Your task to perform on an android device: Show me the best rated 4K TV on Walmart. Image 0: 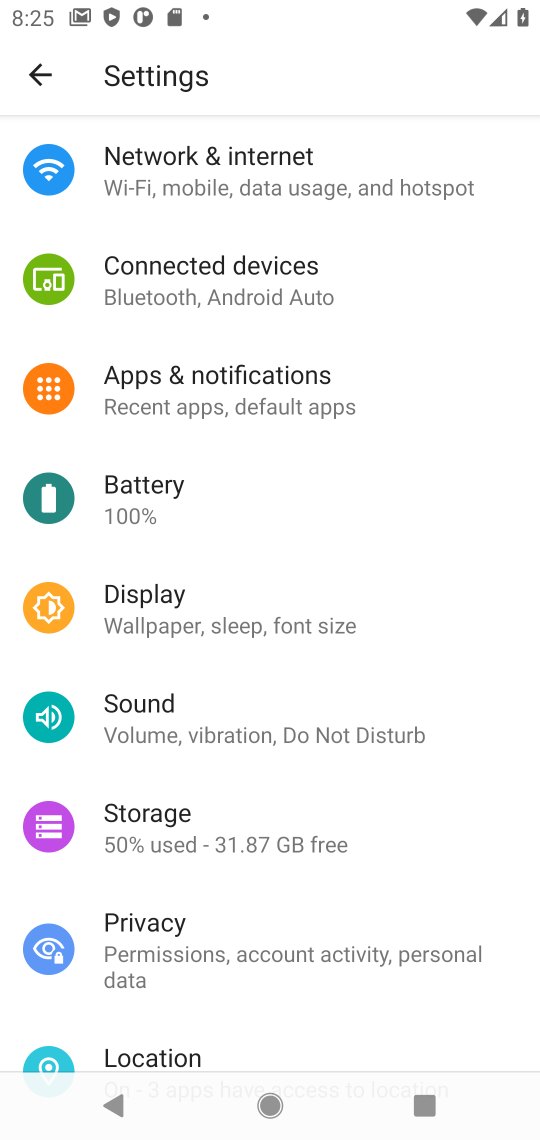
Step 0: press home button
Your task to perform on an android device: Show me the best rated 4K TV on Walmart. Image 1: 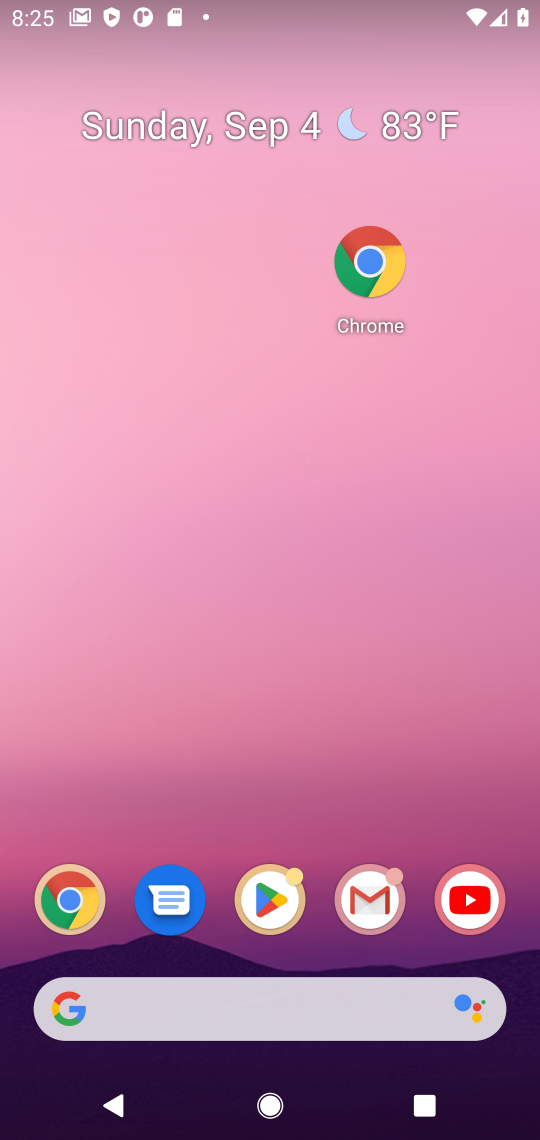
Step 1: click (353, 252)
Your task to perform on an android device: Show me the best rated 4K TV on Walmart. Image 2: 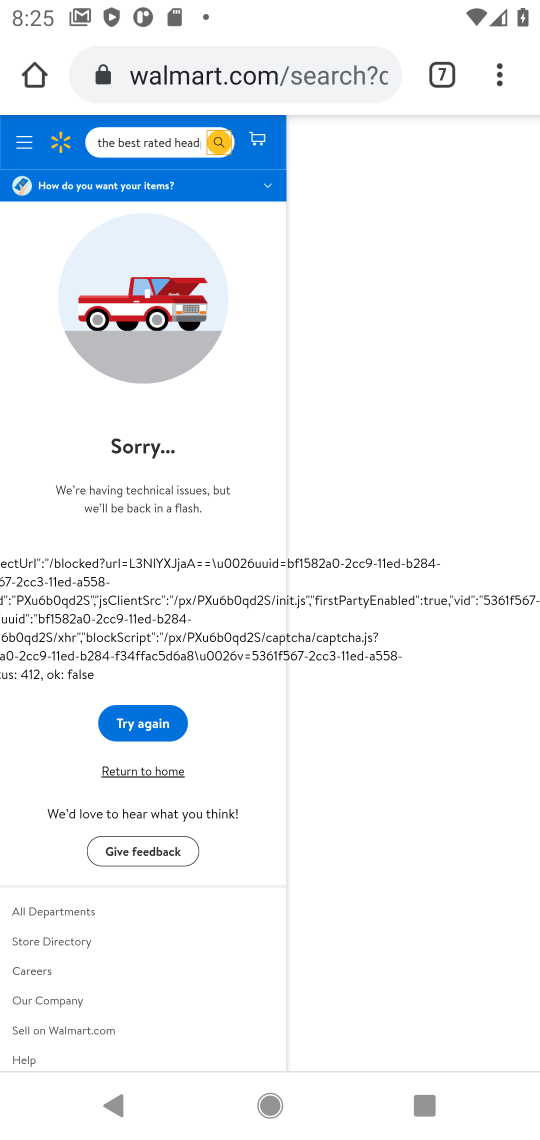
Step 2: click (431, 66)
Your task to perform on an android device: Show me the best rated 4K TV on Walmart. Image 3: 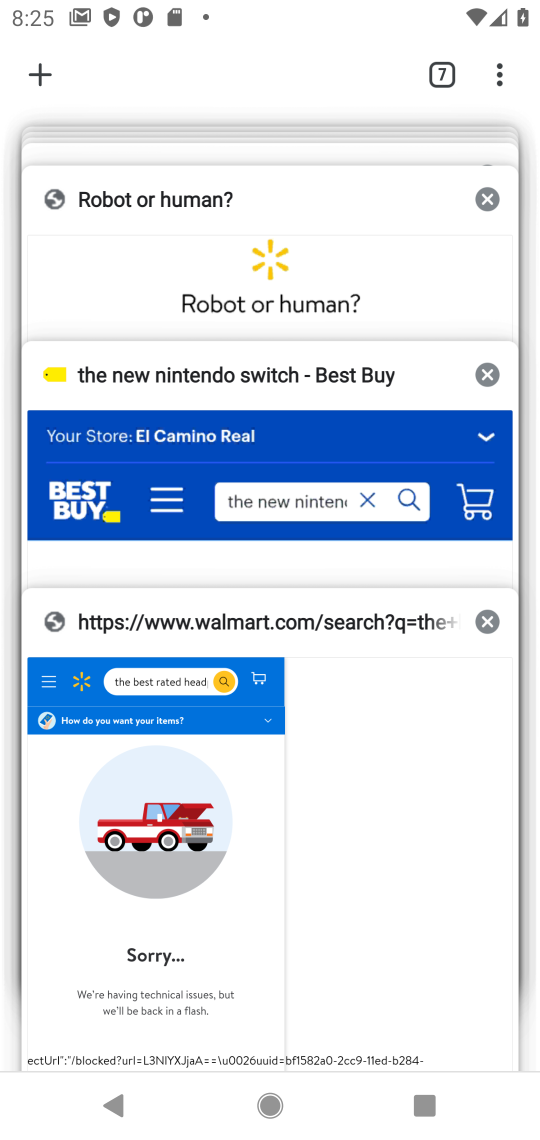
Step 3: click (412, 801)
Your task to perform on an android device: Show me the best rated 4K TV on Walmart. Image 4: 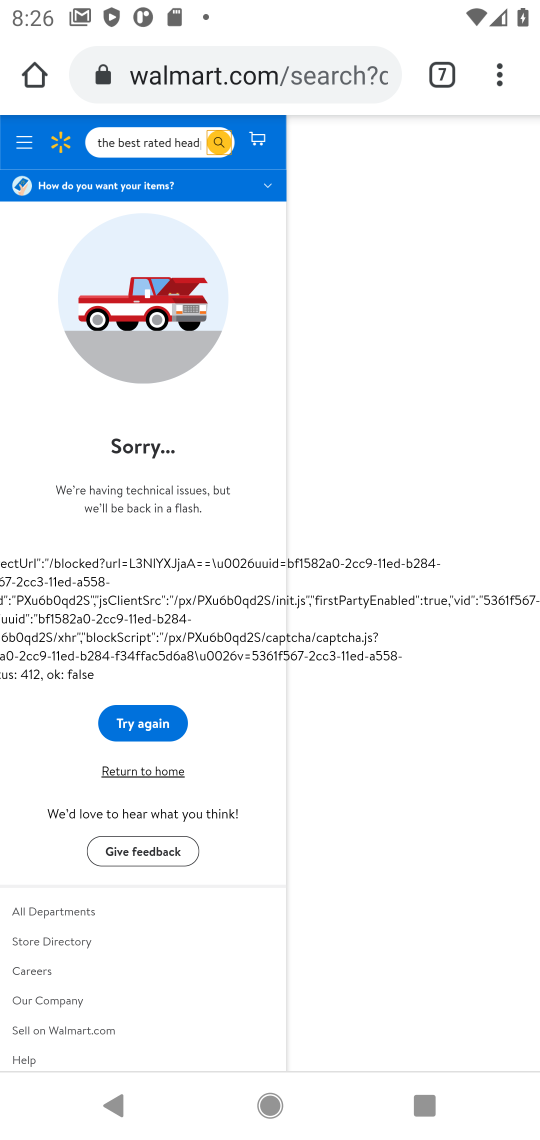
Step 4: click (198, 126)
Your task to perform on an android device: Show me the best rated 4K TV on Walmart. Image 5: 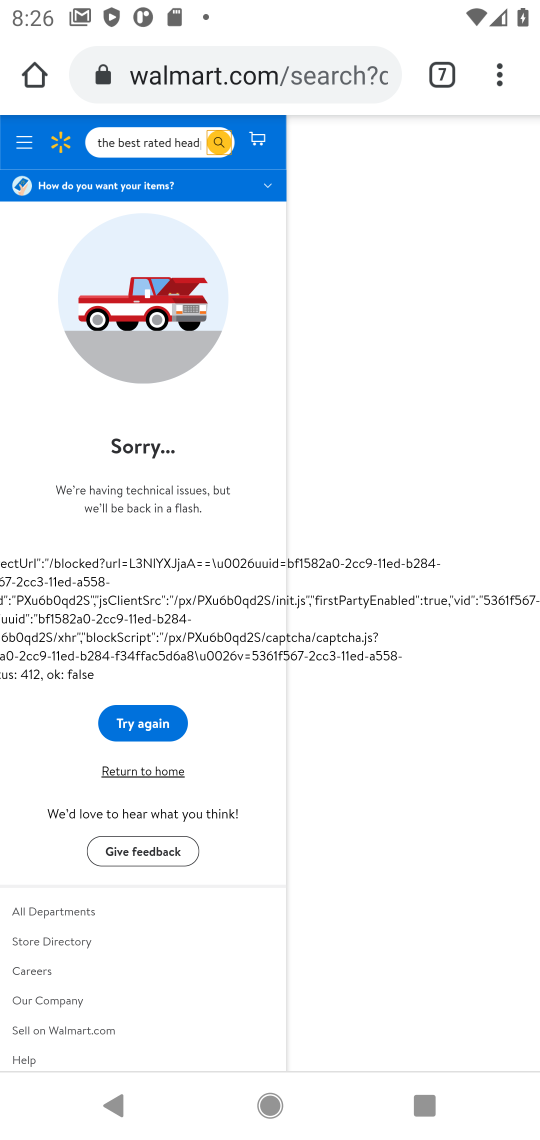
Step 5: click (428, 74)
Your task to perform on an android device: Show me the best rated 4K TV on Walmart. Image 6: 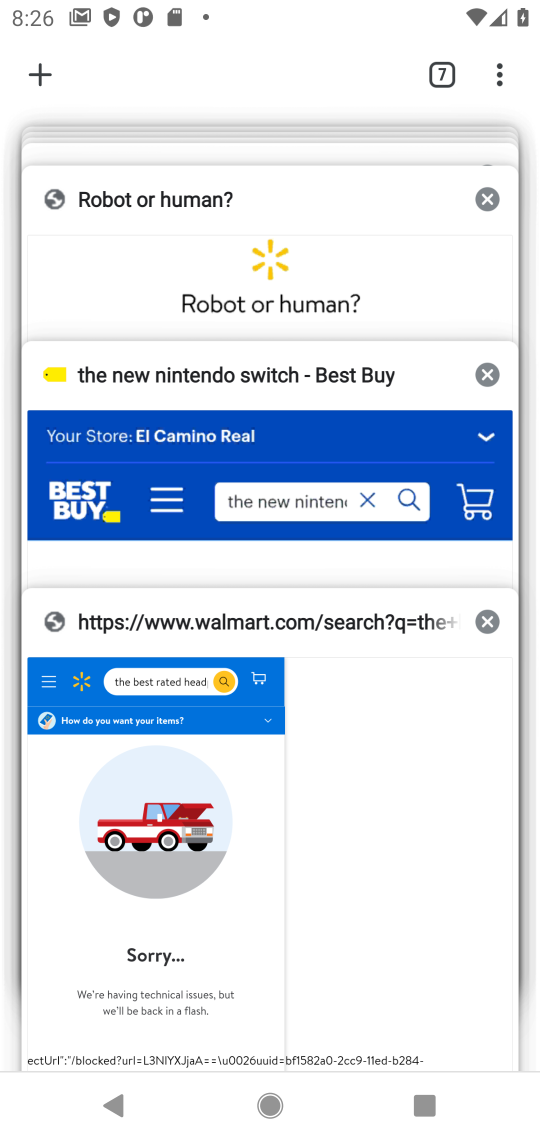
Step 6: click (40, 61)
Your task to perform on an android device: Show me the best rated 4K TV on Walmart. Image 7: 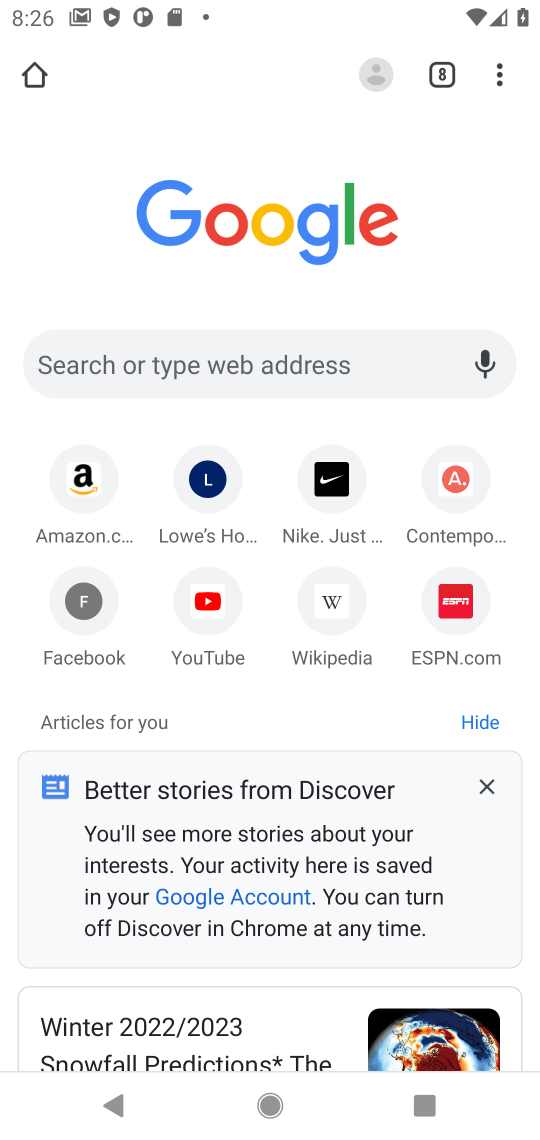
Step 7: click (117, 374)
Your task to perform on an android device: Show me the best rated 4K TV on Walmart. Image 8: 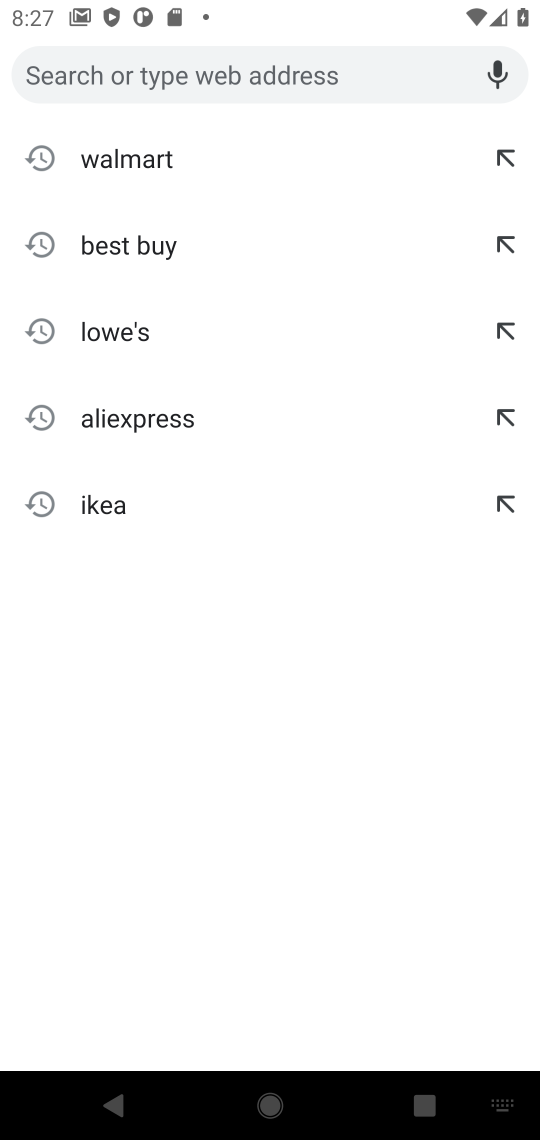
Step 8: click (61, 156)
Your task to perform on an android device: Show me the best rated 4K TV on Walmart. Image 9: 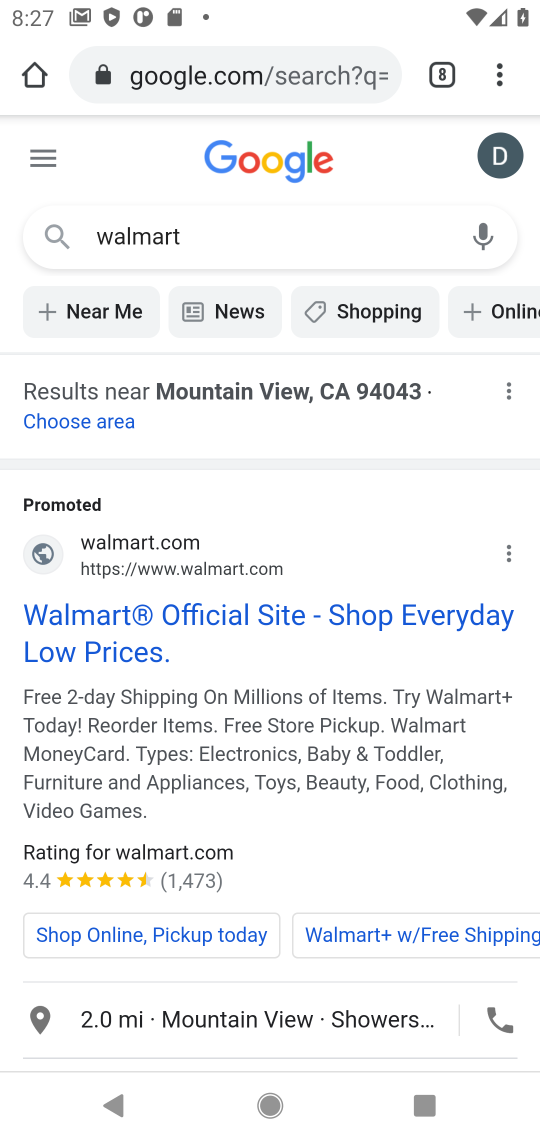
Step 9: click (346, 608)
Your task to perform on an android device: Show me the best rated 4K TV on Walmart. Image 10: 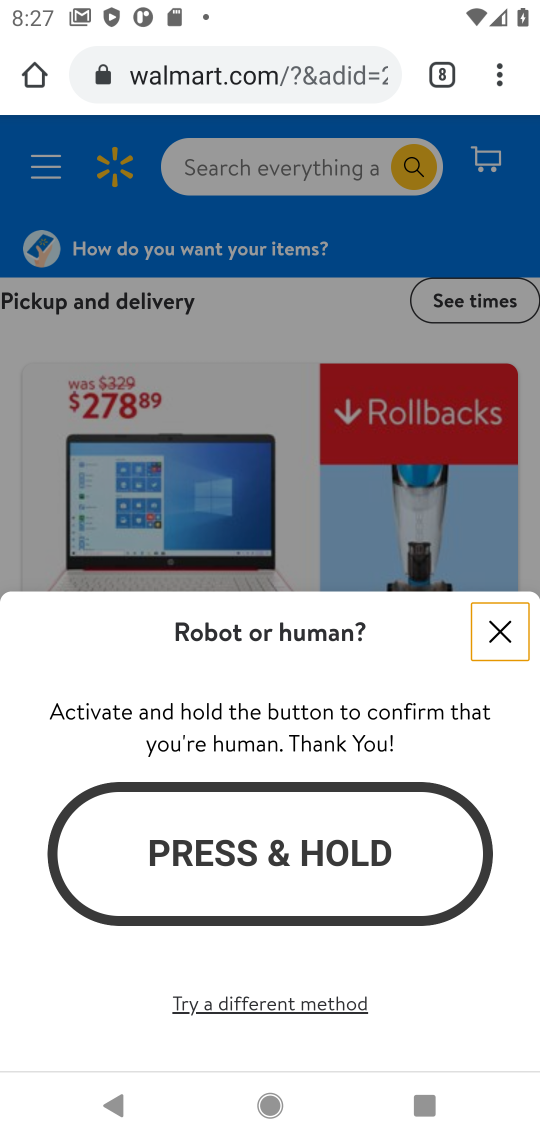
Step 10: click (486, 648)
Your task to perform on an android device: Show me the best rated 4K TV on Walmart. Image 11: 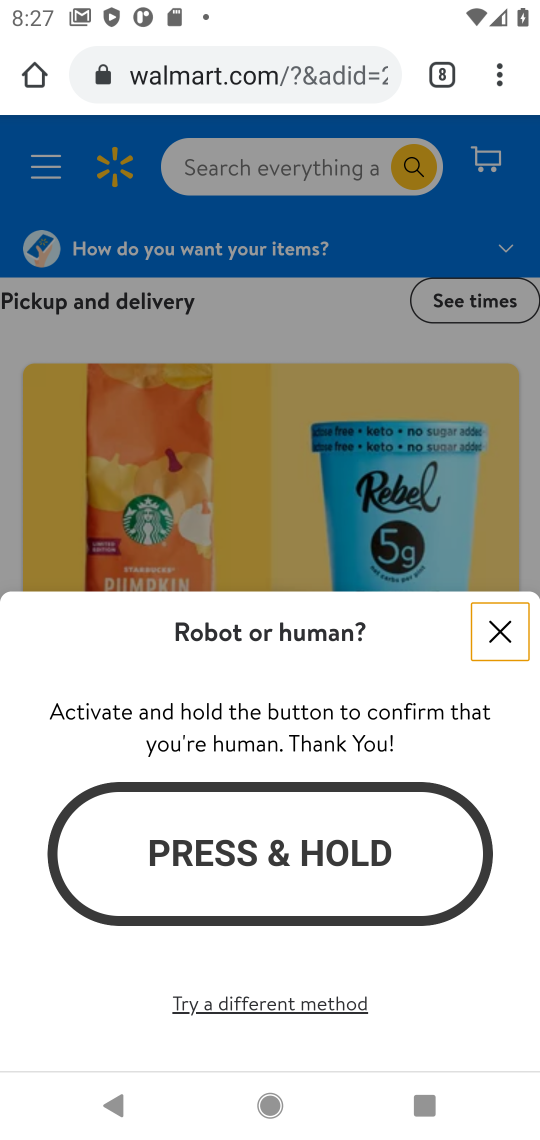
Step 11: click (497, 636)
Your task to perform on an android device: Show me the best rated 4K TV on Walmart. Image 12: 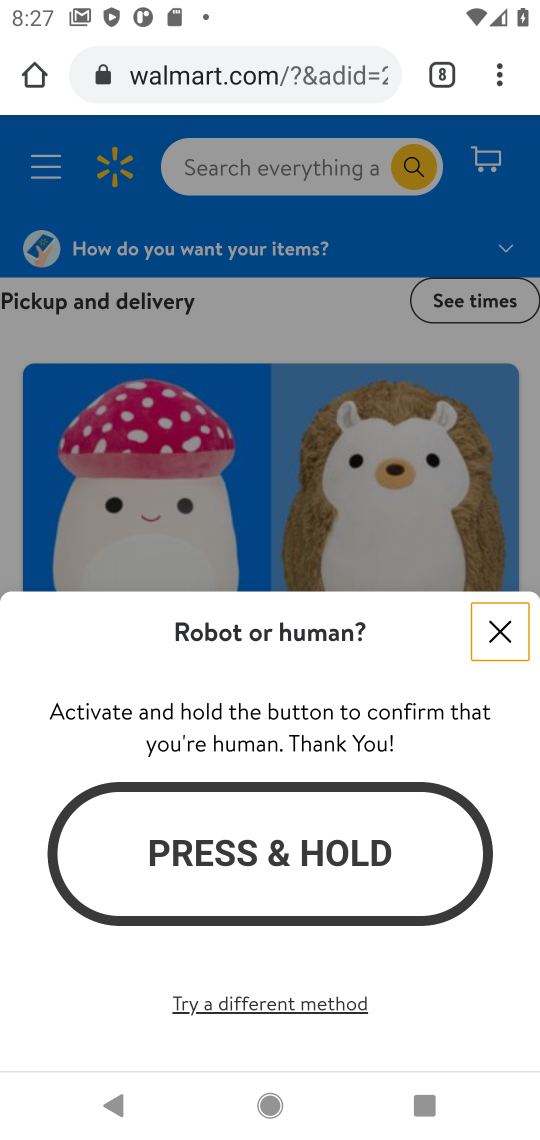
Step 12: click (497, 636)
Your task to perform on an android device: Show me the best rated 4K TV on Walmart. Image 13: 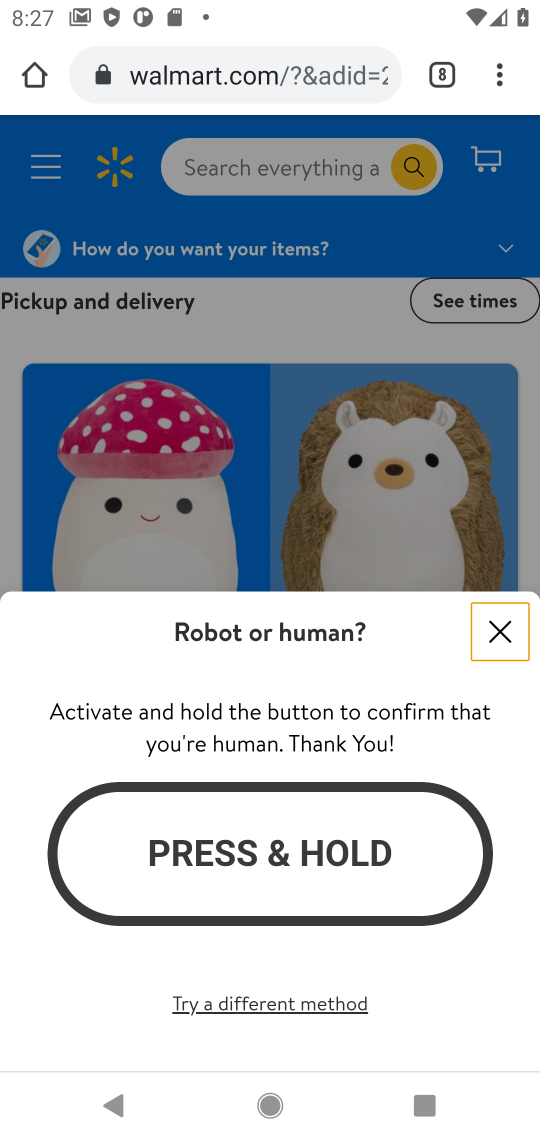
Step 13: click (497, 636)
Your task to perform on an android device: Show me the best rated 4K TV on Walmart. Image 14: 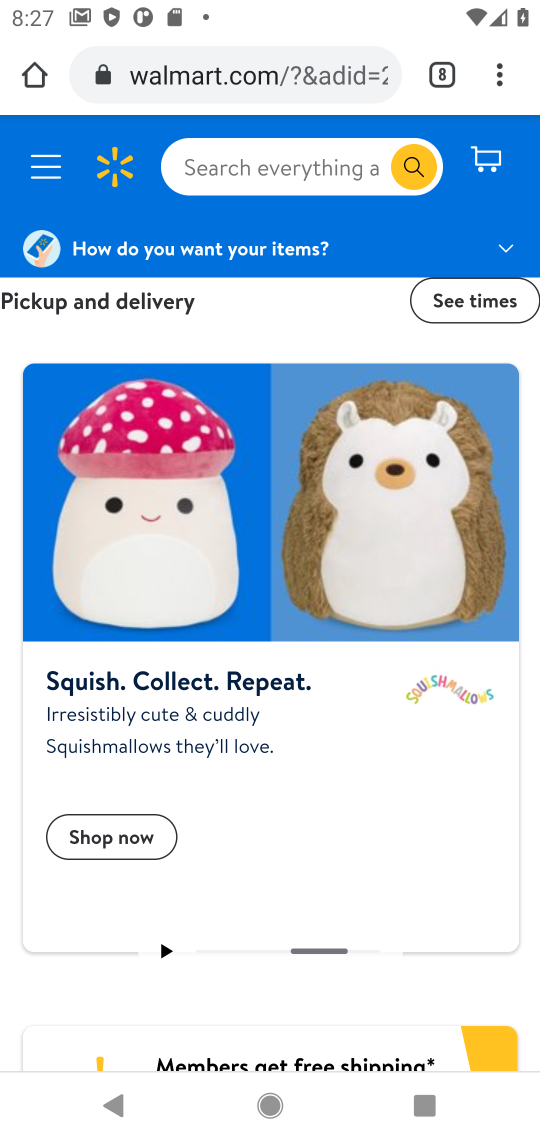
Step 14: click (274, 163)
Your task to perform on an android device: Show me the best rated 4K TV on Walmart. Image 15: 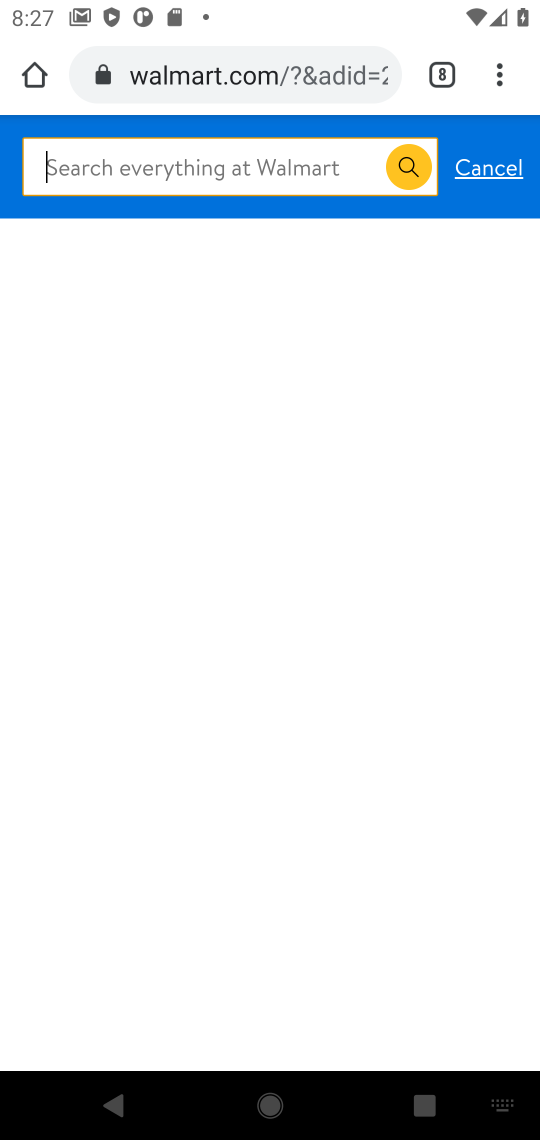
Step 15: type "the best rated 4K TV "
Your task to perform on an android device: Show me the best rated 4K TV on Walmart. Image 16: 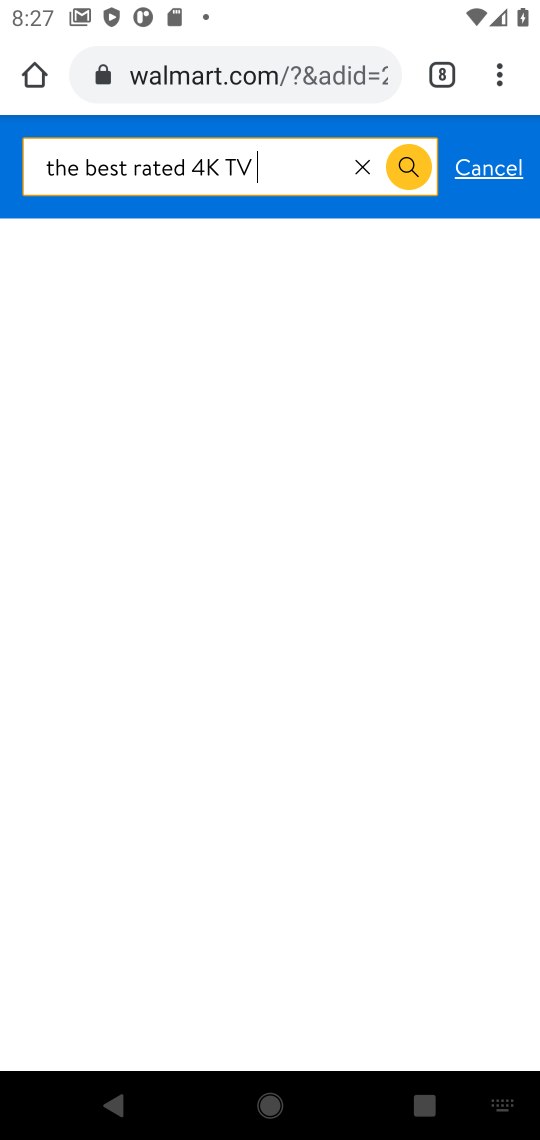
Step 16: click (407, 166)
Your task to perform on an android device: Show me the best rated 4K TV on Walmart. Image 17: 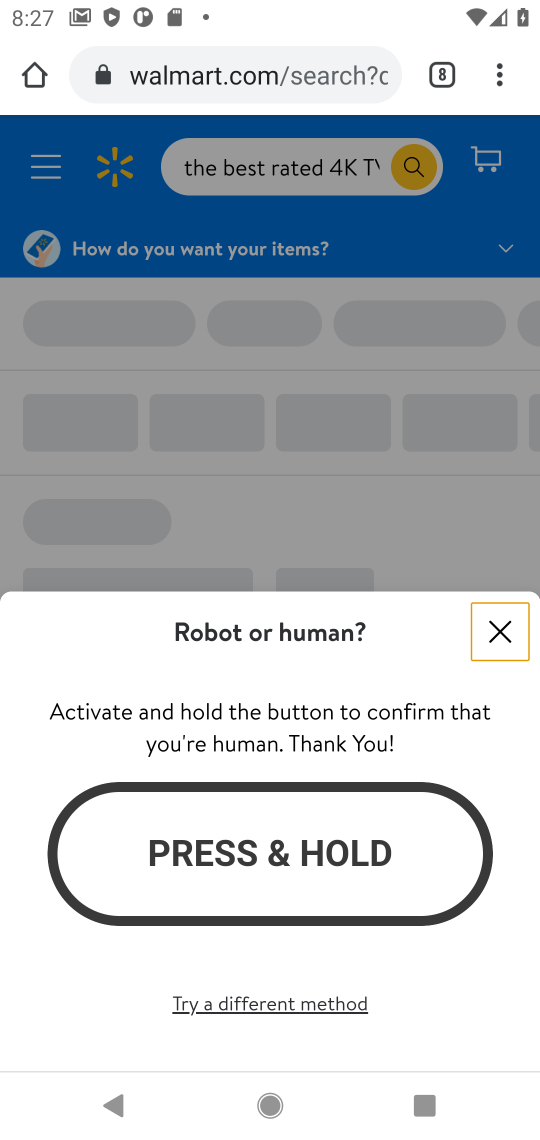
Step 17: click (501, 620)
Your task to perform on an android device: Show me the best rated 4K TV on Walmart. Image 18: 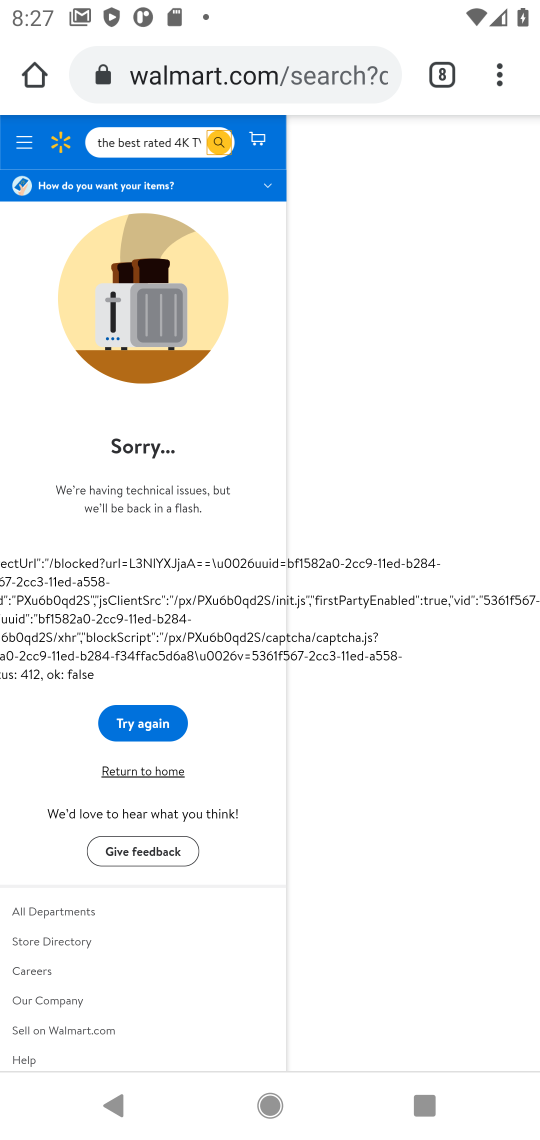
Step 18: task complete